Your task to perform on an android device: Show me a list of home improvement items on the Home Depot website. Image 0: 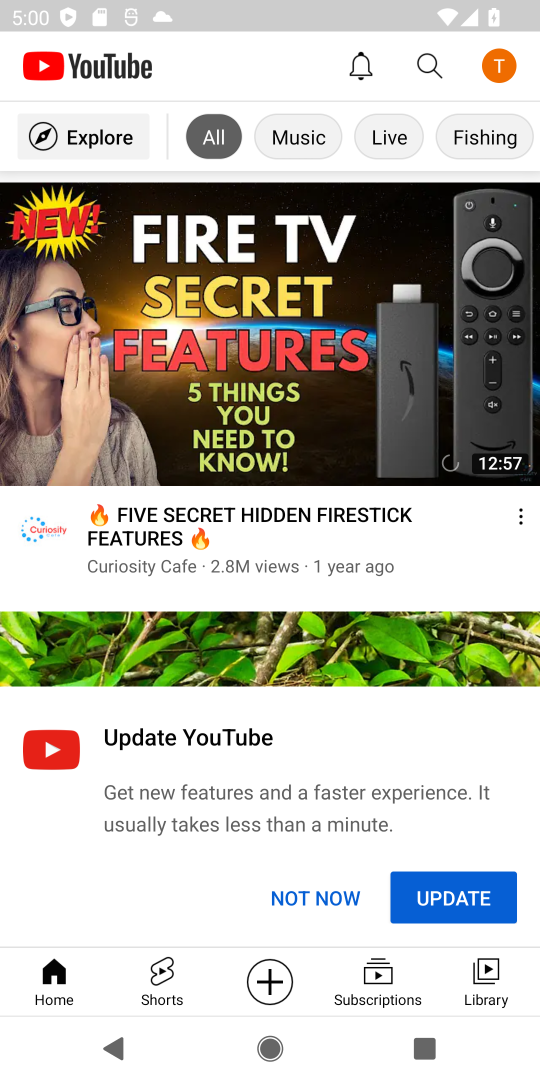
Step 0: press home button
Your task to perform on an android device: Show me a list of home improvement items on the Home Depot website. Image 1: 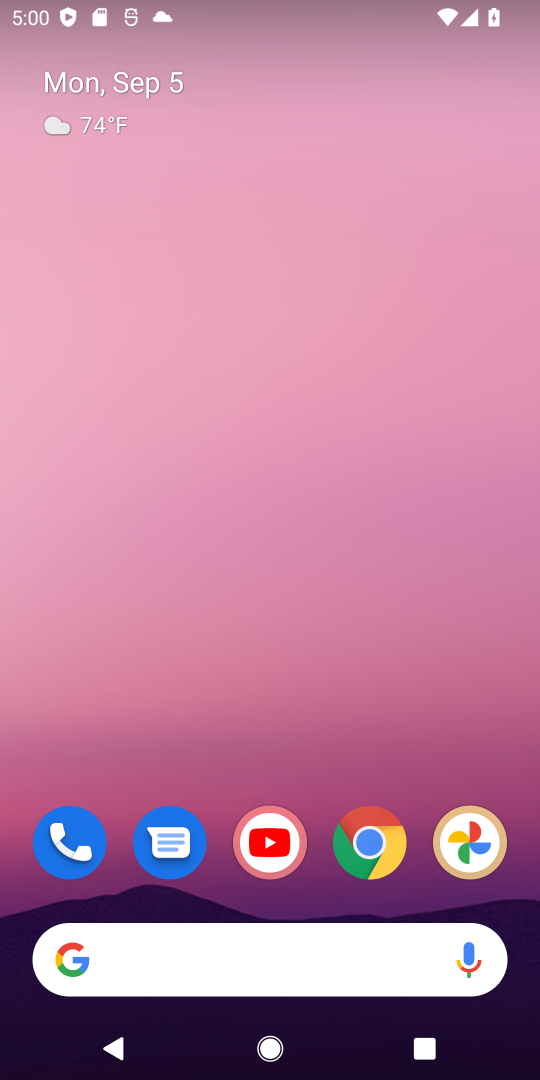
Step 1: click (367, 842)
Your task to perform on an android device: Show me a list of home improvement items on the Home Depot website. Image 2: 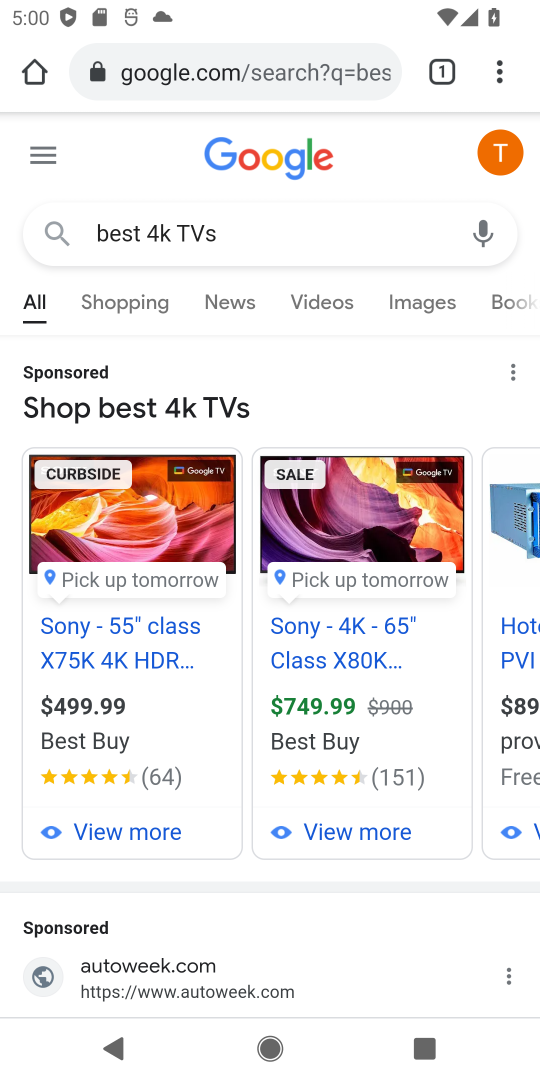
Step 2: click (357, 71)
Your task to perform on an android device: Show me a list of home improvement items on the Home Depot website. Image 3: 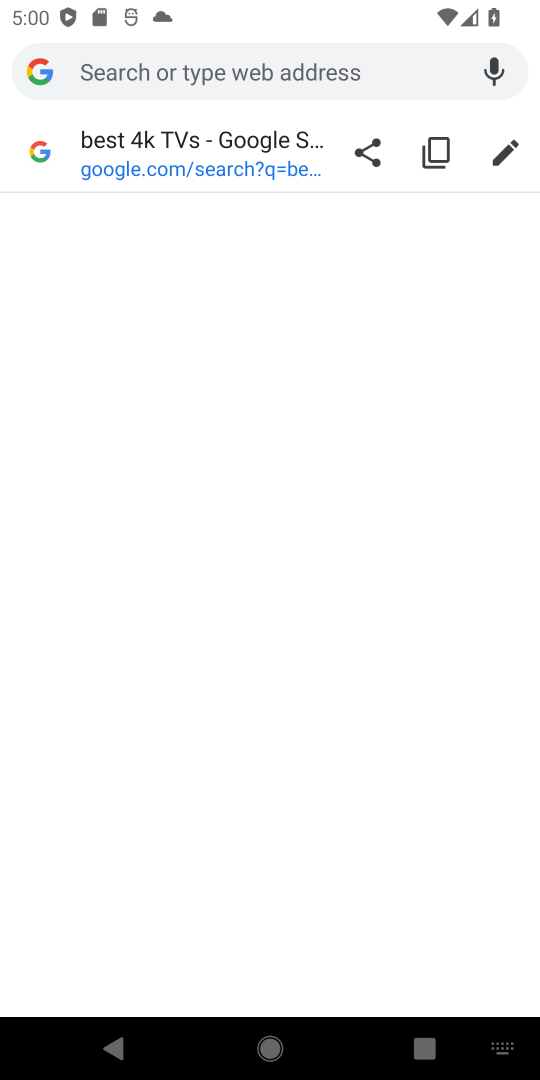
Step 3: click (329, 69)
Your task to perform on an android device: Show me a list of home improvement items on the Home Depot website. Image 4: 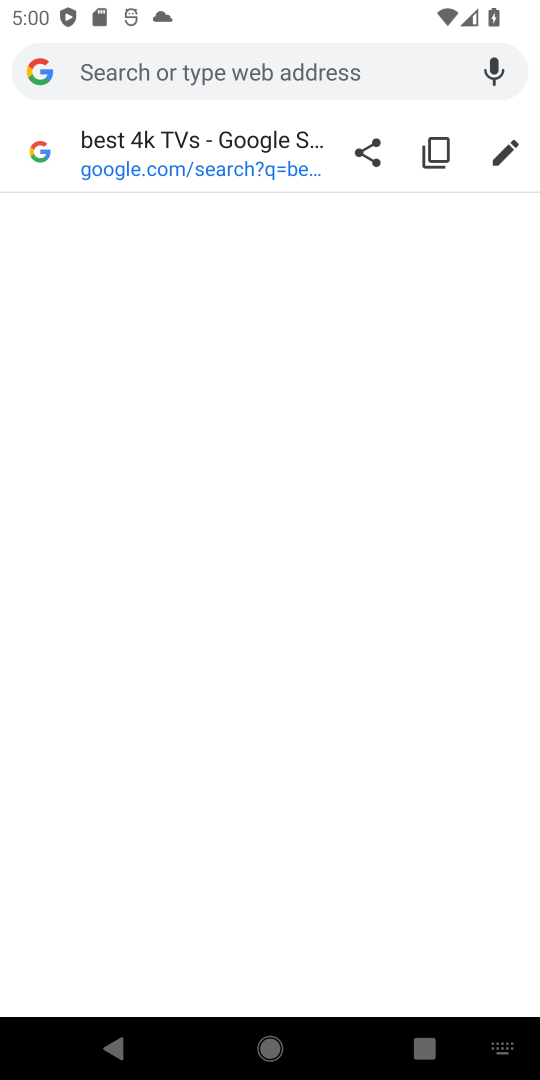
Step 4: type "Home Depot"
Your task to perform on an android device: Show me a list of home improvement items on the Home Depot website. Image 5: 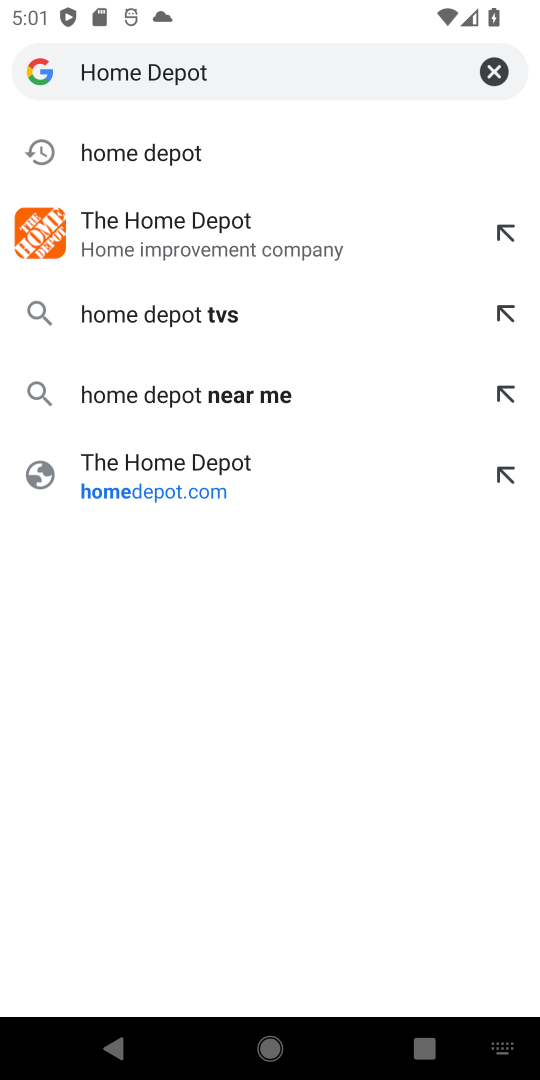
Step 5: click (212, 246)
Your task to perform on an android device: Show me a list of home improvement items on the Home Depot website. Image 6: 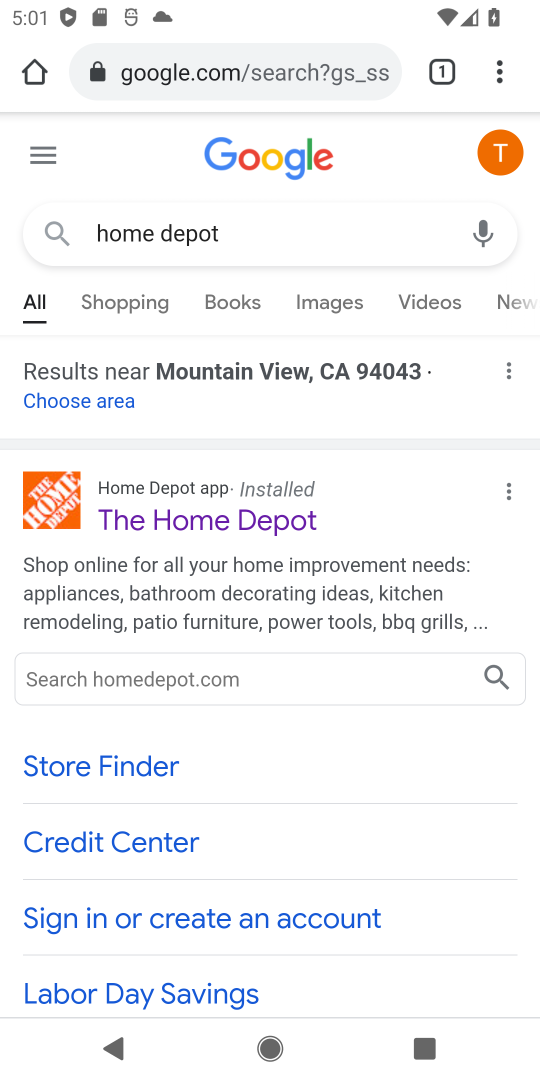
Step 6: click (263, 514)
Your task to perform on an android device: Show me a list of home improvement items on the Home Depot website. Image 7: 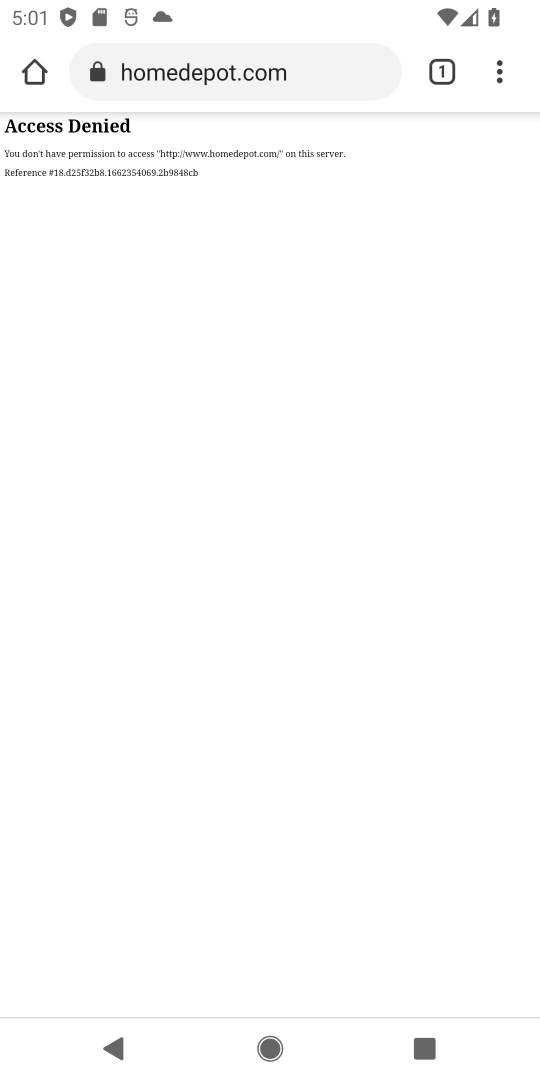
Step 7: task complete